Your task to perform on an android device: move a message to another label in the gmail app Image 0: 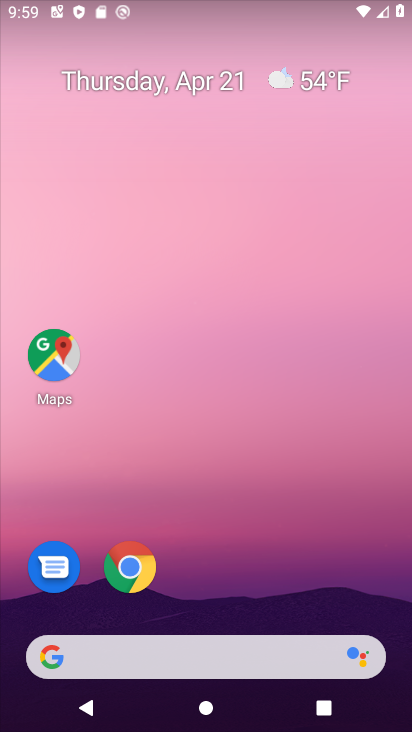
Step 0: drag from (388, 614) to (301, 90)
Your task to perform on an android device: move a message to another label in the gmail app Image 1: 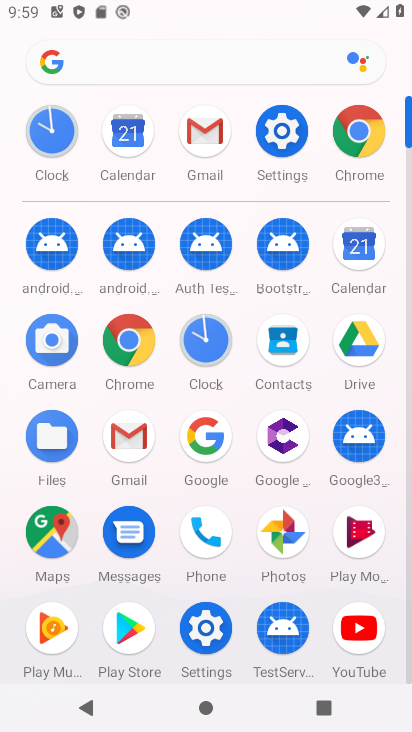
Step 1: click (406, 651)
Your task to perform on an android device: move a message to another label in the gmail app Image 2: 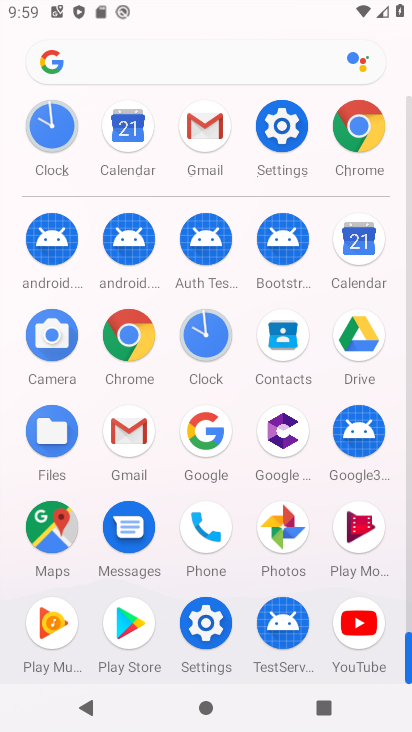
Step 2: click (128, 431)
Your task to perform on an android device: move a message to another label in the gmail app Image 3: 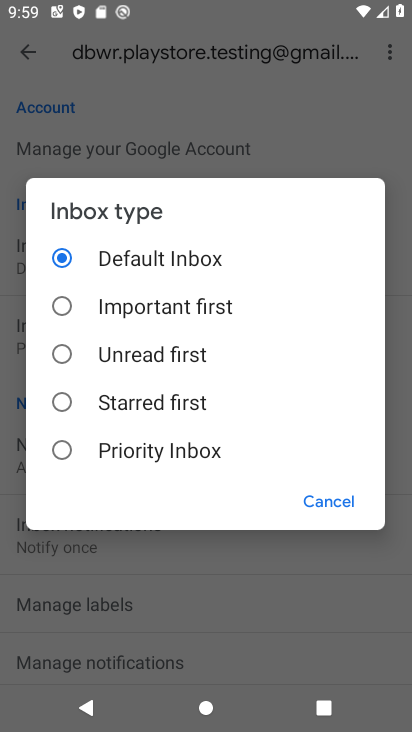
Step 3: click (333, 500)
Your task to perform on an android device: move a message to another label in the gmail app Image 4: 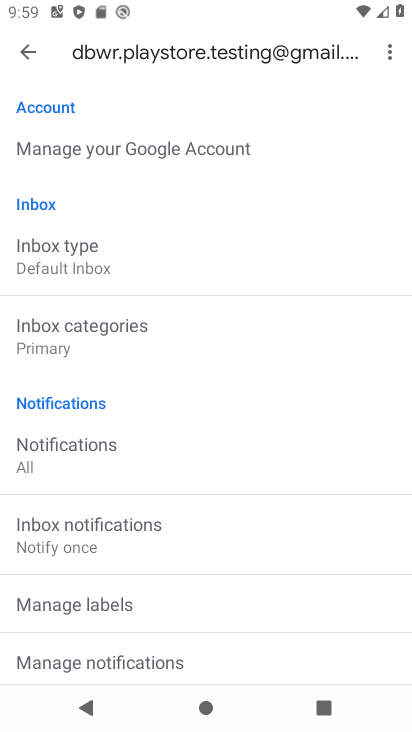
Step 4: press back button
Your task to perform on an android device: move a message to another label in the gmail app Image 5: 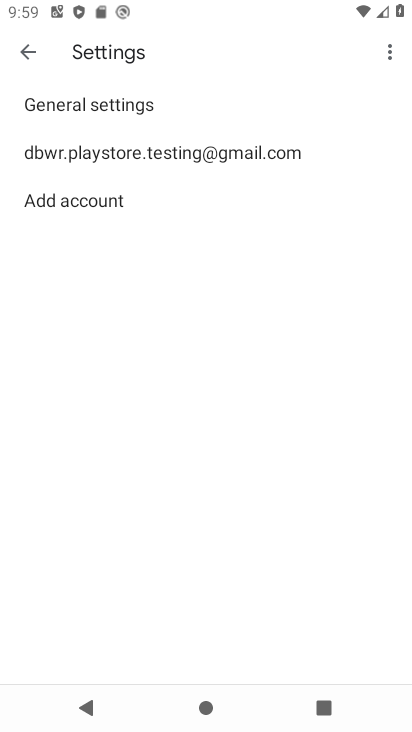
Step 5: press back button
Your task to perform on an android device: move a message to another label in the gmail app Image 6: 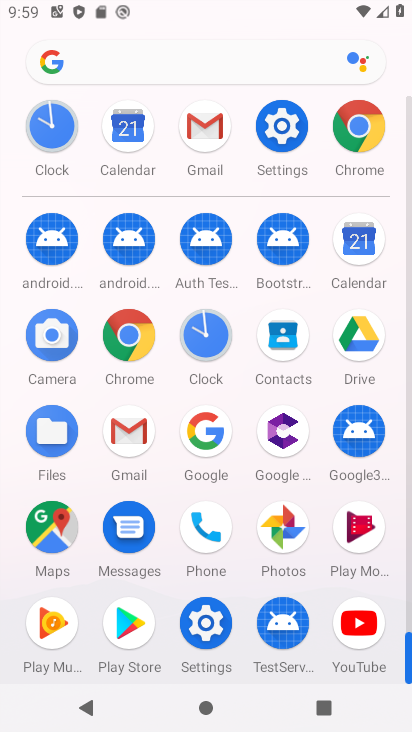
Step 6: click (124, 426)
Your task to perform on an android device: move a message to another label in the gmail app Image 7: 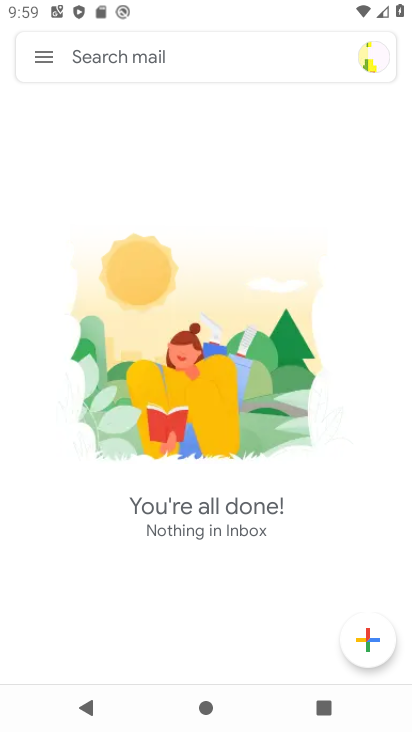
Step 7: click (46, 60)
Your task to perform on an android device: move a message to another label in the gmail app Image 8: 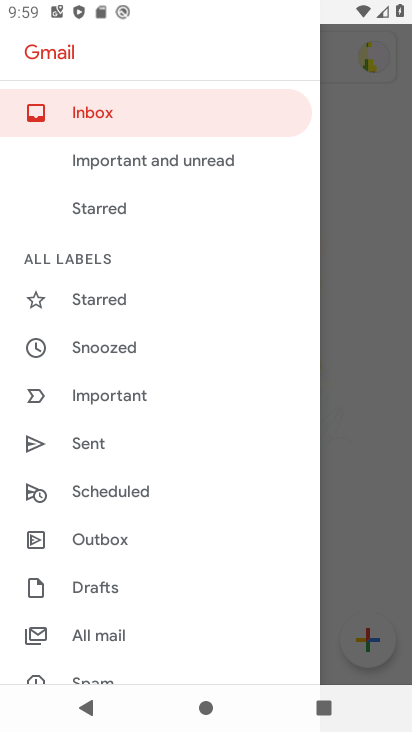
Step 8: click (83, 636)
Your task to perform on an android device: move a message to another label in the gmail app Image 9: 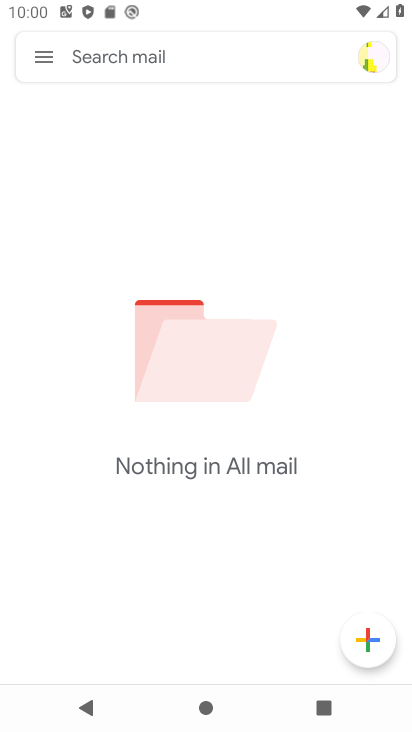
Step 9: task complete